Your task to perform on an android device: delete a single message in the gmail app Image 0: 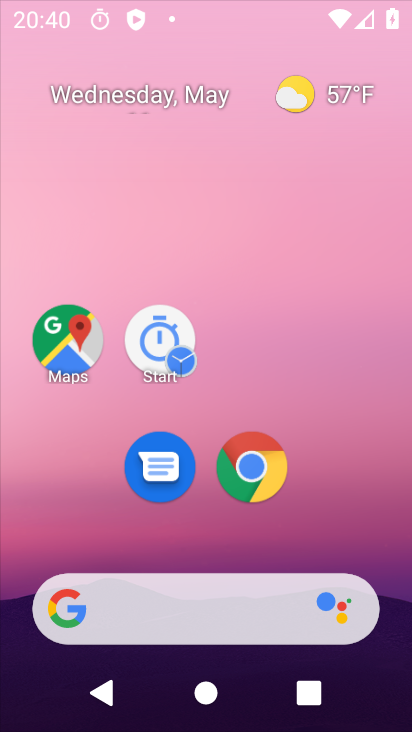
Step 0: drag from (338, 656) to (137, 121)
Your task to perform on an android device: delete a single message in the gmail app Image 1: 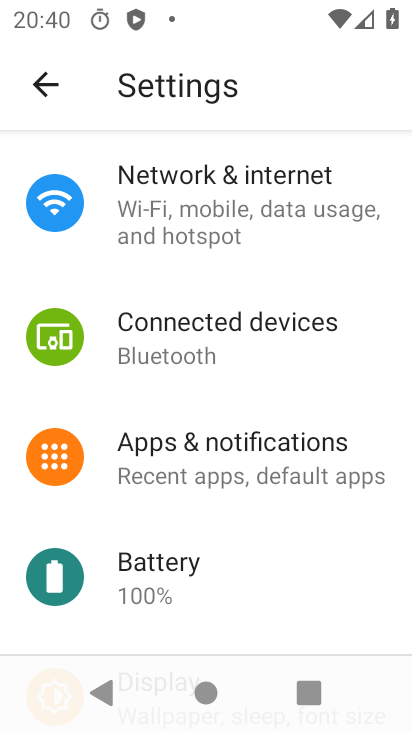
Step 1: click (45, 94)
Your task to perform on an android device: delete a single message in the gmail app Image 2: 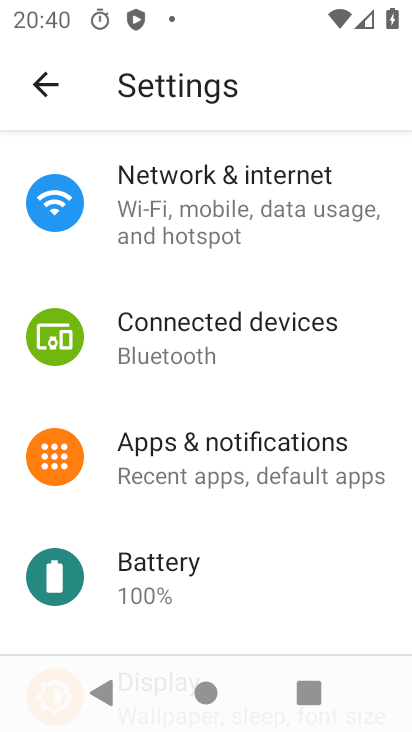
Step 2: click (45, 94)
Your task to perform on an android device: delete a single message in the gmail app Image 3: 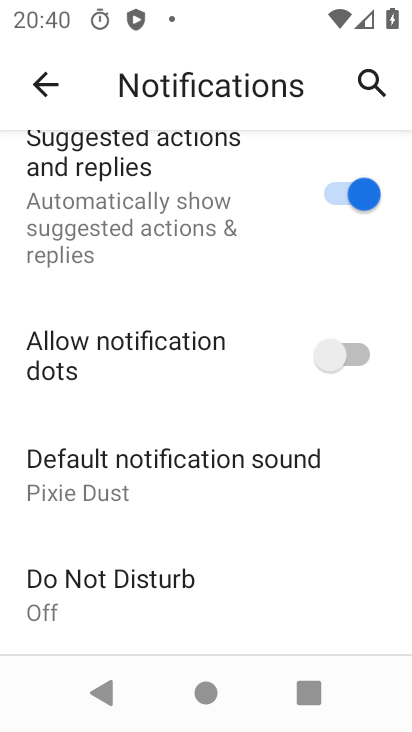
Step 3: click (46, 84)
Your task to perform on an android device: delete a single message in the gmail app Image 4: 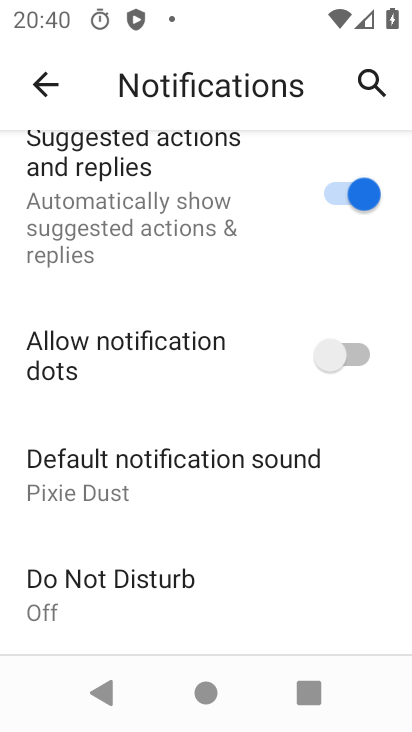
Step 4: click (46, 84)
Your task to perform on an android device: delete a single message in the gmail app Image 5: 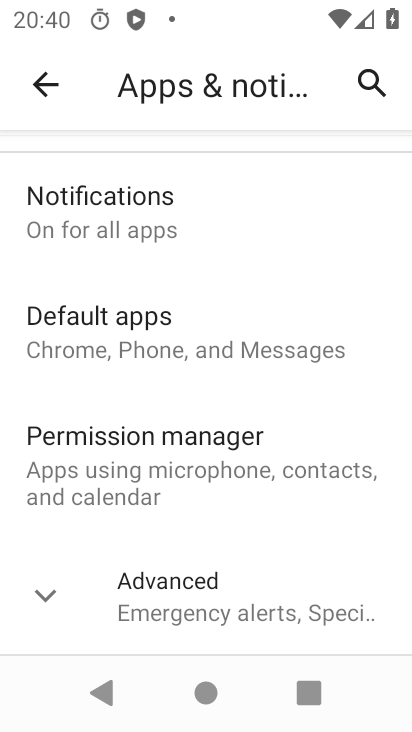
Step 5: click (47, 109)
Your task to perform on an android device: delete a single message in the gmail app Image 6: 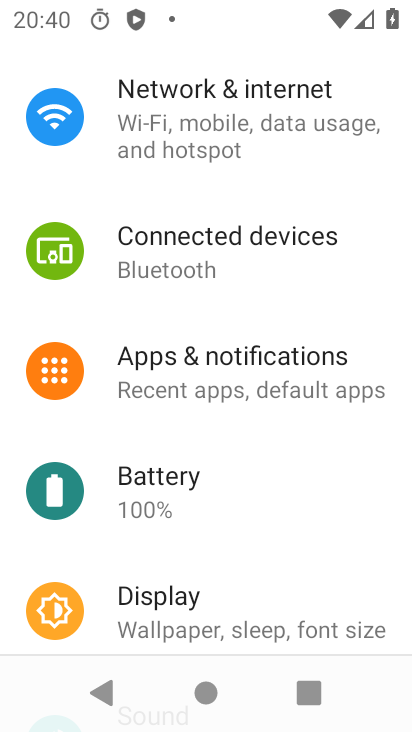
Step 6: press home button
Your task to perform on an android device: delete a single message in the gmail app Image 7: 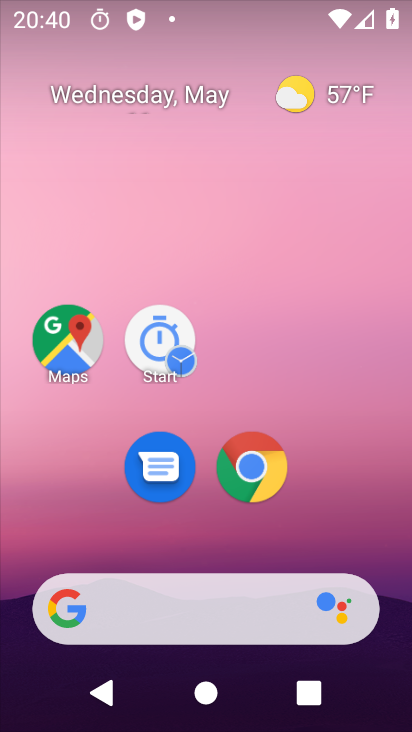
Step 7: drag from (396, 582) to (327, 334)
Your task to perform on an android device: delete a single message in the gmail app Image 8: 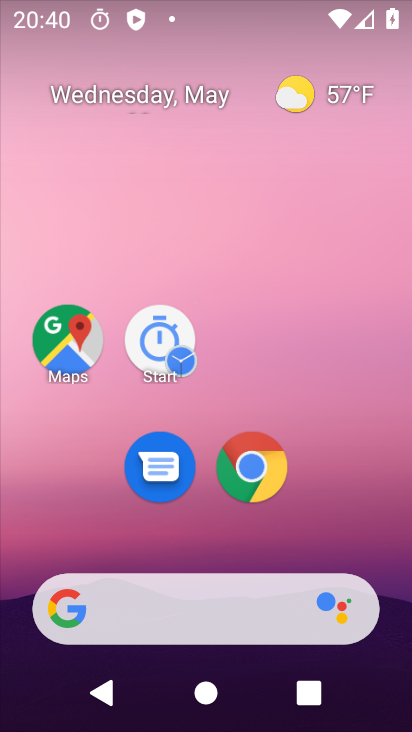
Step 8: drag from (325, 498) to (88, 100)
Your task to perform on an android device: delete a single message in the gmail app Image 9: 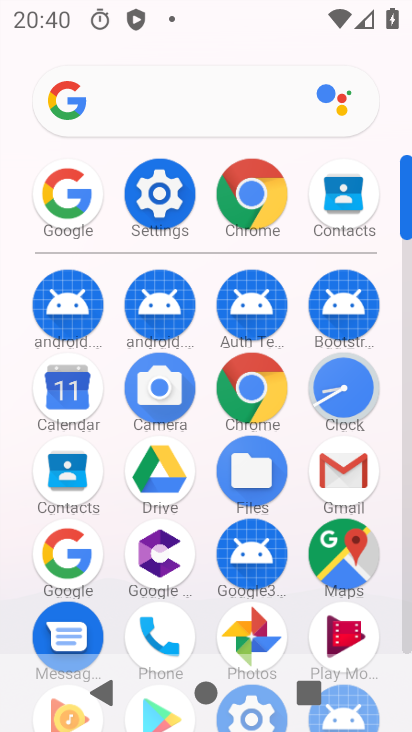
Step 9: click (344, 478)
Your task to perform on an android device: delete a single message in the gmail app Image 10: 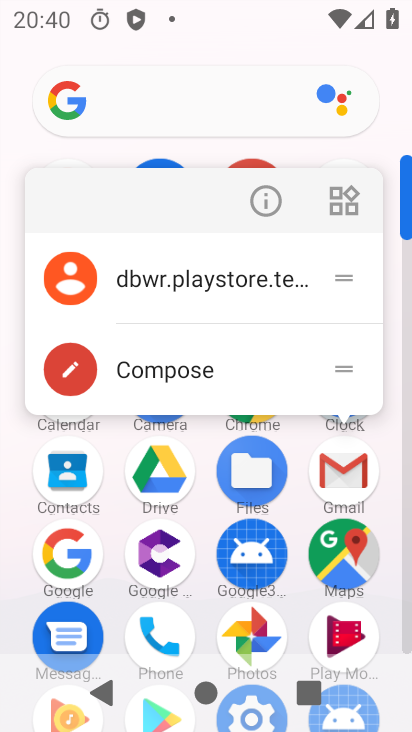
Step 10: click (334, 458)
Your task to perform on an android device: delete a single message in the gmail app Image 11: 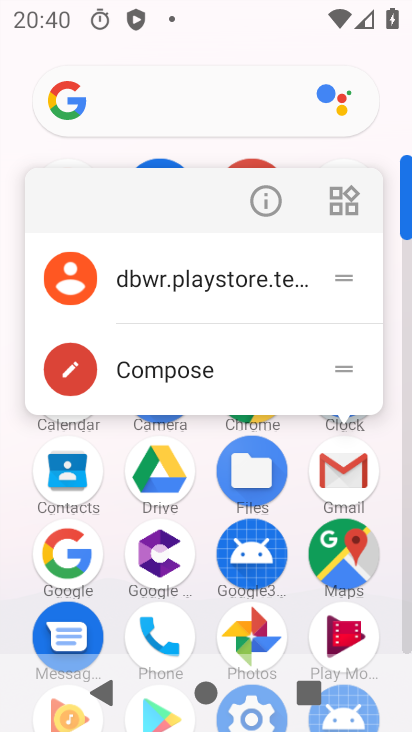
Step 11: click (334, 458)
Your task to perform on an android device: delete a single message in the gmail app Image 12: 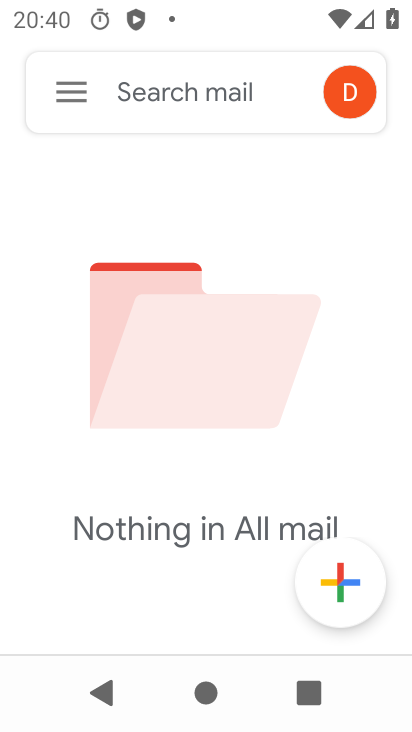
Step 12: click (335, 457)
Your task to perform on an android device: delete a single message in the gmail app Image 13: 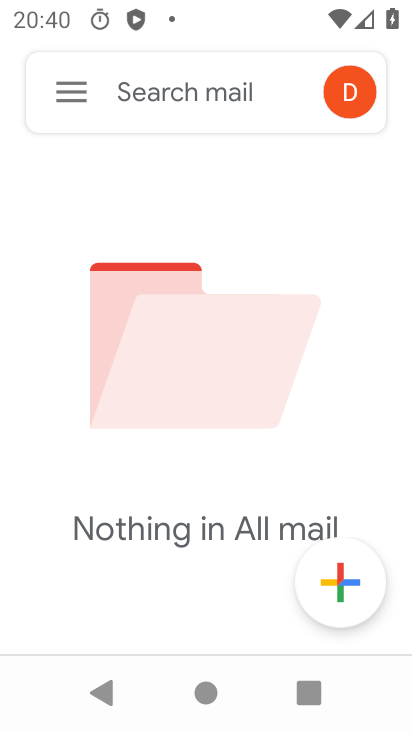
Step 13: task complete